Your task to perform on an android device: Open the web browser Image 0: 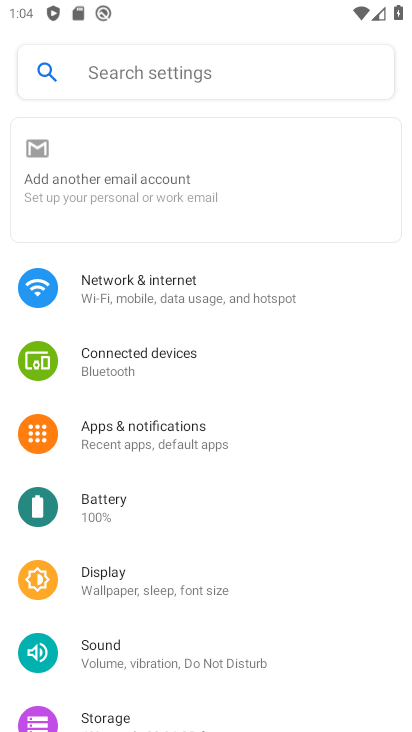
Step 0: press home button
Your task to perform on an android device: Open the web browser Image 1: 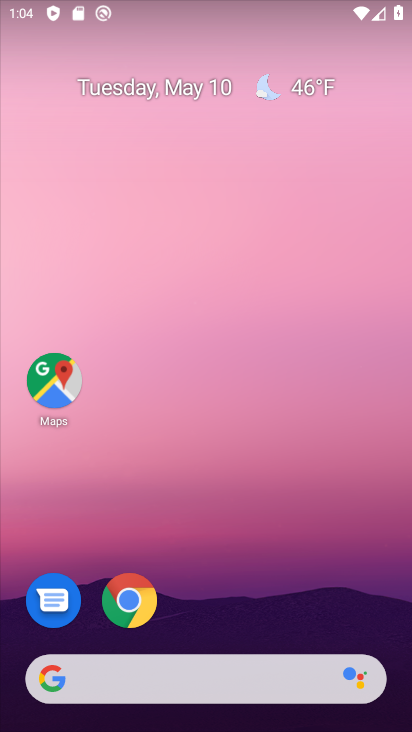
Step 1: click (130, 618)
Your task to perform on an android device: Open the web browser Image 2: 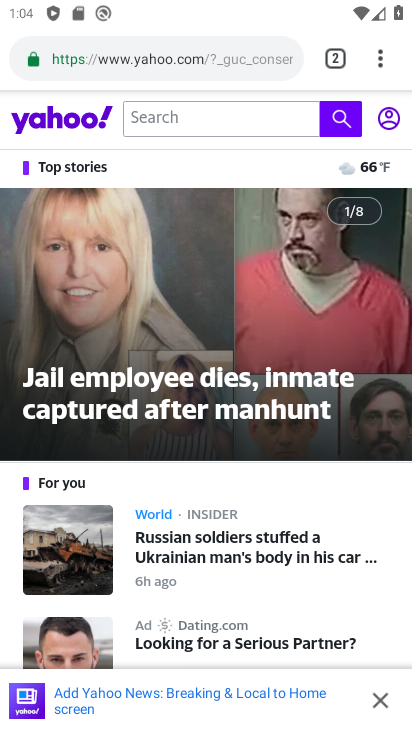
Step 2: task complete